Your task to perform on an android device: turn off location Image 0: 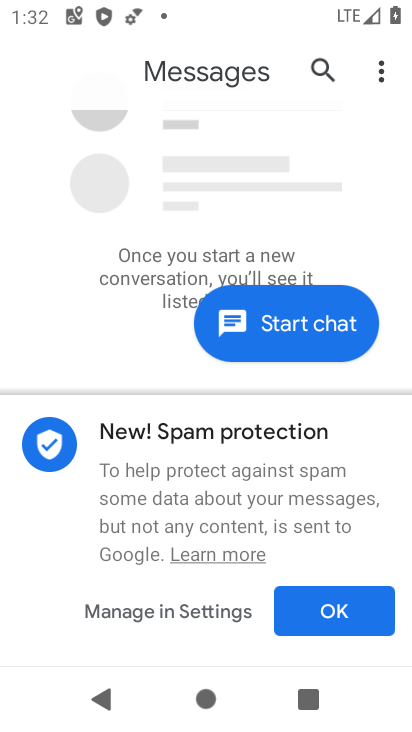
Step 0: press home button
Your task to perform on an android device: turn off location Image 1: 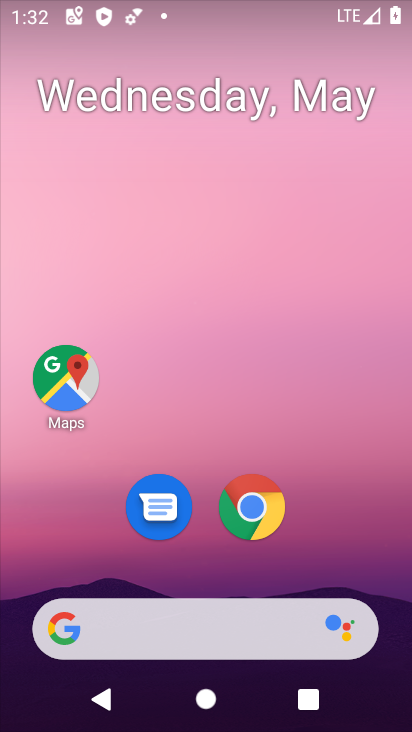
Step 1: drag from (347, 541) to (219, 68)
Your task to perform on an android device: turn off location Image 2: 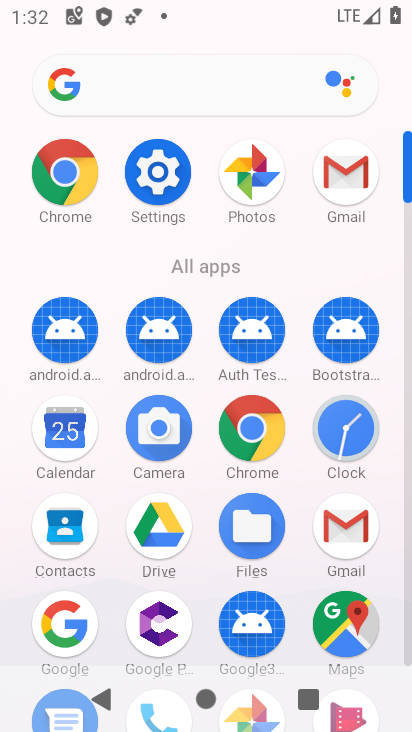
Step 2: click (172, 175)
Your task to perform on an android device: turn off location Image 3: 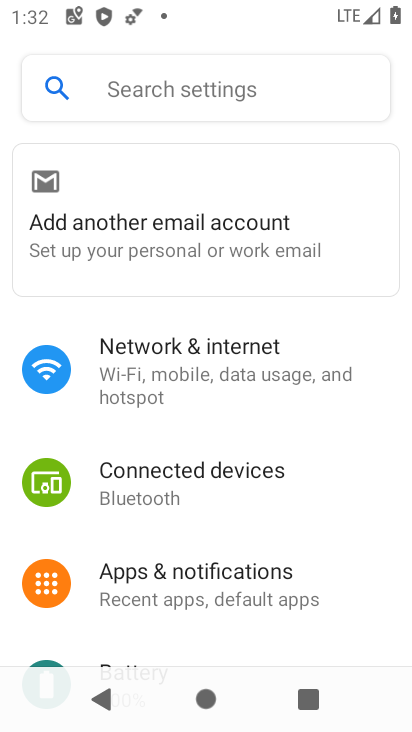
Step 3: drag from (246, 638) to (190, 253)
Your task to perform on an android device: turn off location Image 4: 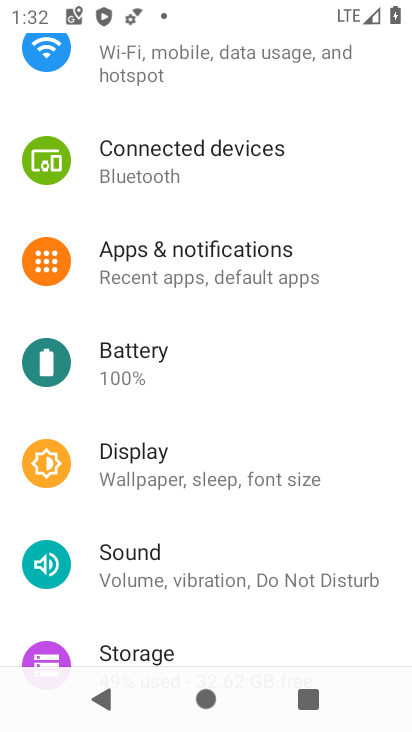
Step 4: drag from (242, 556) to (217, 215)
Your task to perform on an android device: turn off location Image 5: 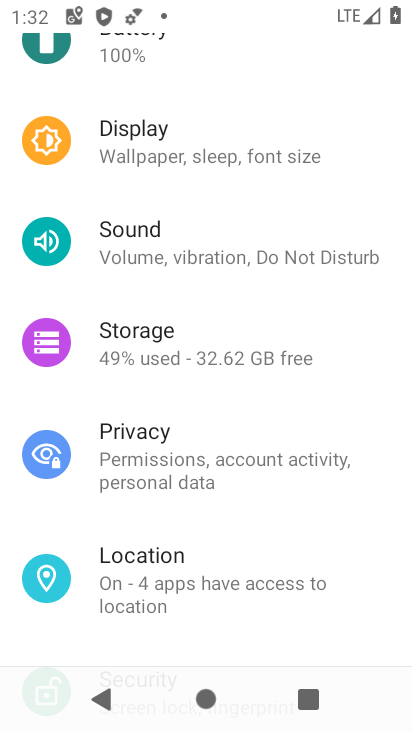
Step 5: click (298, 566)
Your task to perform on an android device: turn off location Image 6: 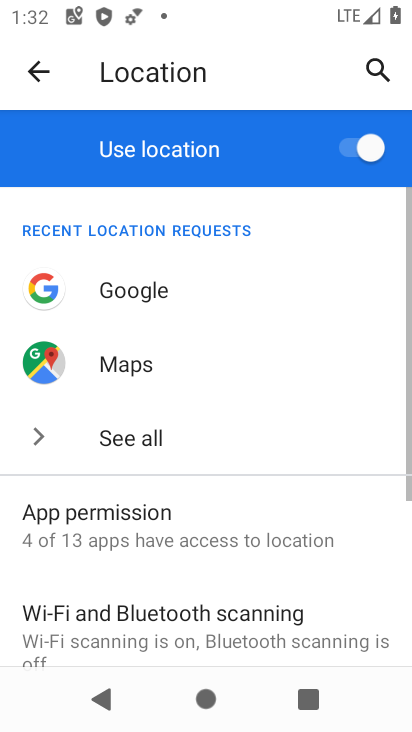
Step 6: click (345, 157)
Your task to perform on an android device: turn off location Image 7: 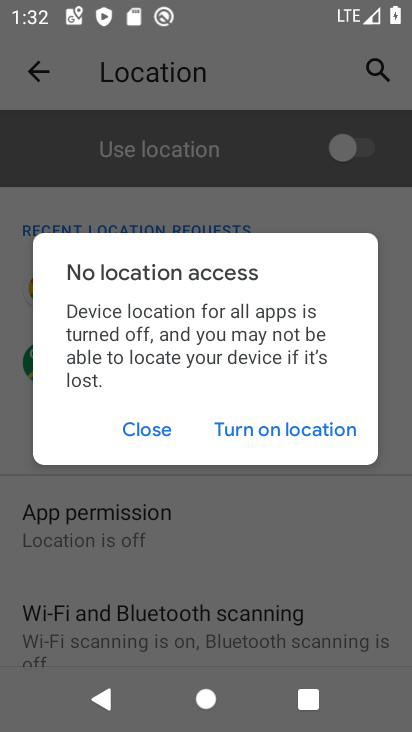
Step 7: task complete